Your task to perform on an android device: toggle show notifications on the lock screen Image 0: 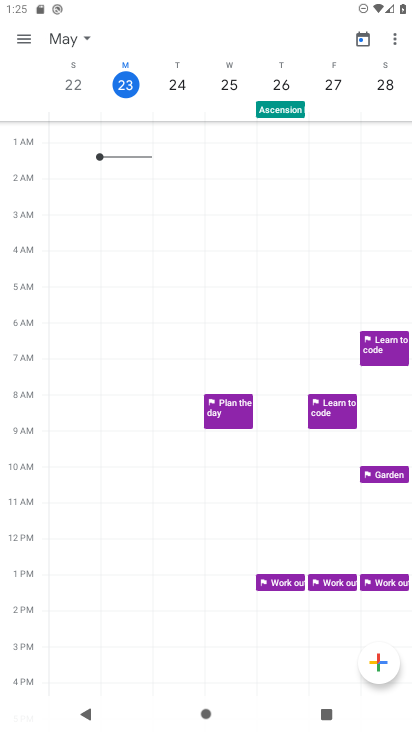
Step 0: press home button
Your task to perform on an android device: toggle show notifications on the lock screen Image 1: 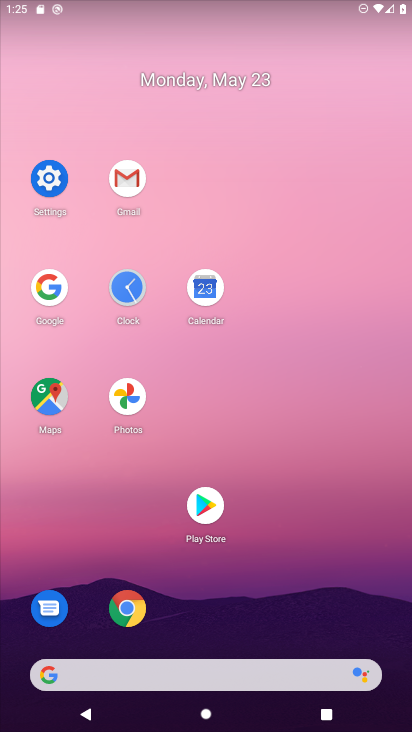
Step 1: click (48, 177)
Your task to perform on an android device: toggle show notifications on the lock screen Image 2: 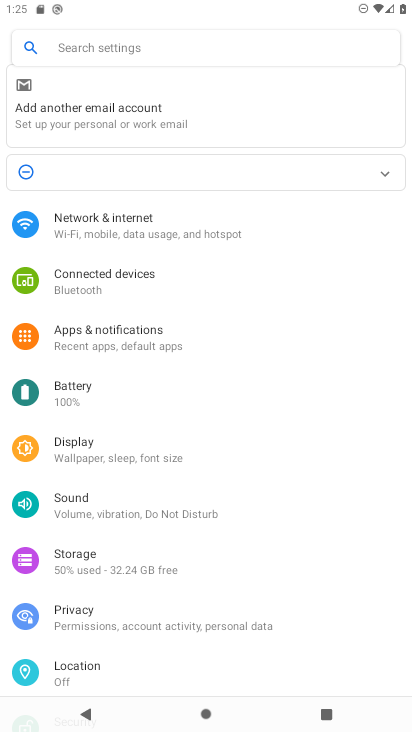
Step 2: click (121, 342)
Your task to perform on an android device: toggle show notifications on the lock screen Image 3: 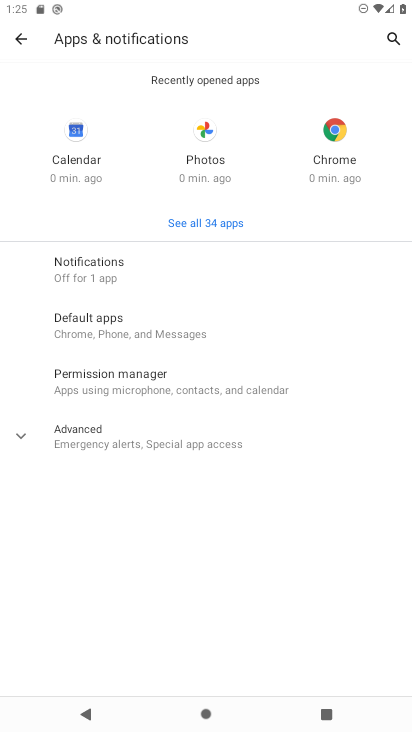
Step 3: click (124, 433)
Your task to perform on an android device: toggle show notifications on the lock screen Image 4: 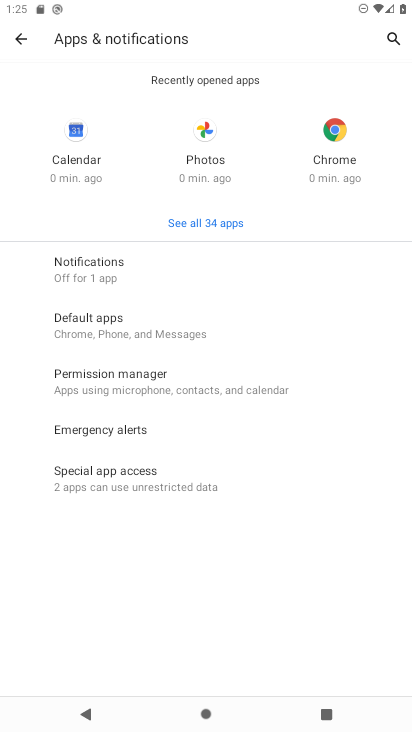
Step 4: click (109, 279)
Your task to perform on an android device: toggle show notifications on the lock screen Image 5: 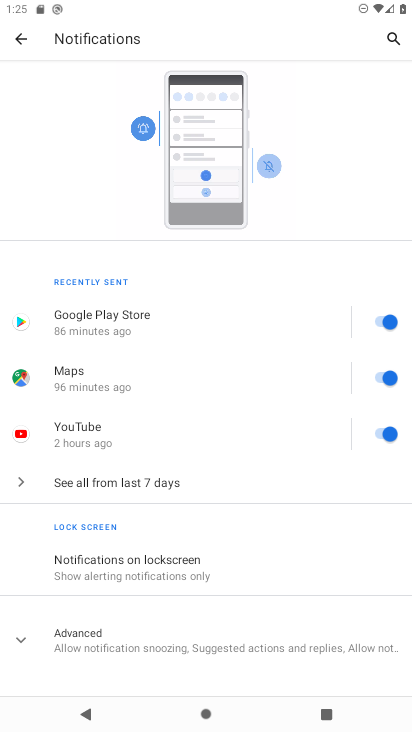
Step 5: click (137, 571)
Your task to perform on an android device: toggle show notifications on the lock screen Image 6: 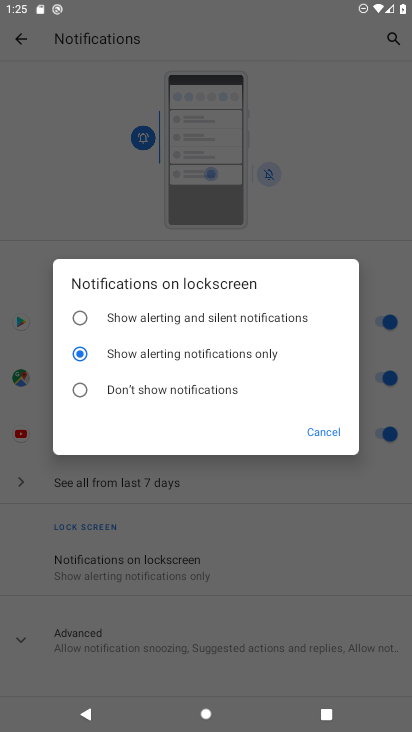
Step 6: click (94, 313)
Your task to perform on an android device: toggle show notifications on the lock screen Image 7: 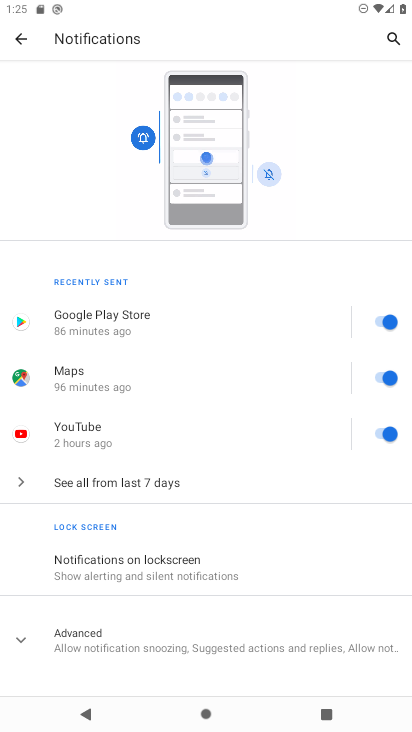
Step 7: task complete